Your task to perform on an android device: Do I have any events this weekend? Image 0: 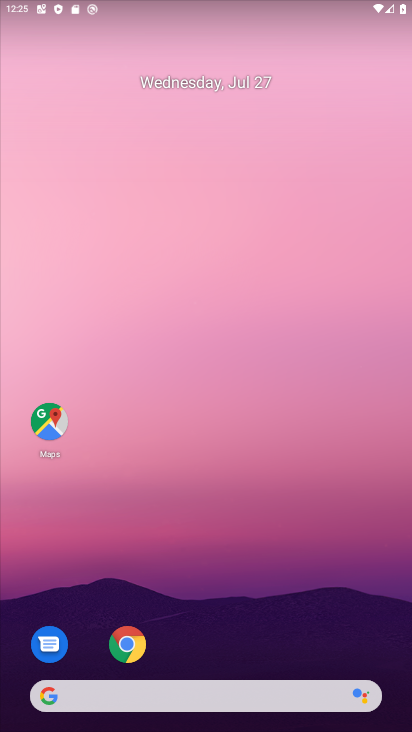
Step 0: press home button
Your task to perform on an android device: Do I have any events this weekend? Image 1: 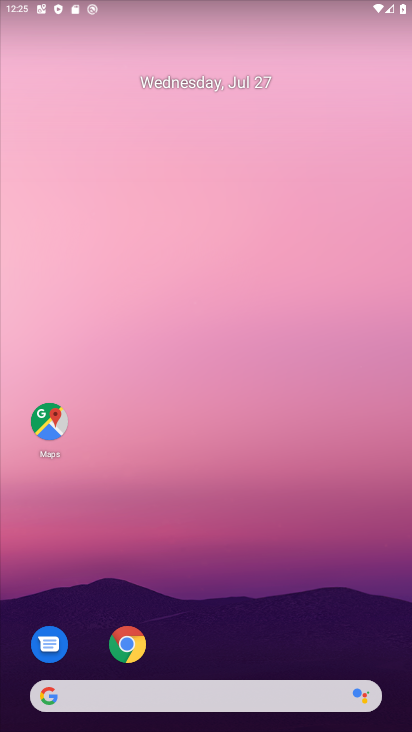
Step 1: drag from (342, 584) to (323, 126)
Your task to perform on an android device: Do I have any events this weekend? Image 2: 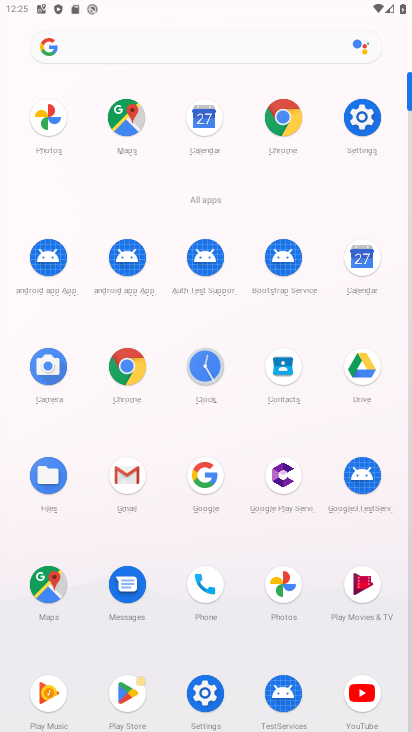
Step 2: click (355, 278)
Your task to perform on an android device: Do I have any events this weekend? Image 3: 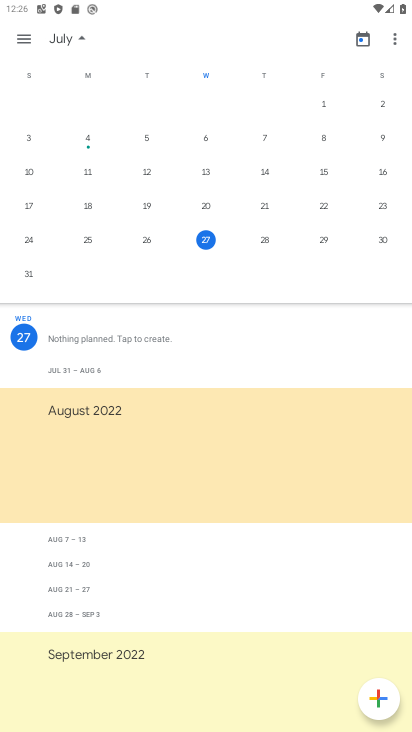
Step 3: task complete